Your task to perform on an android device: Go to Wikipedia Image 0: 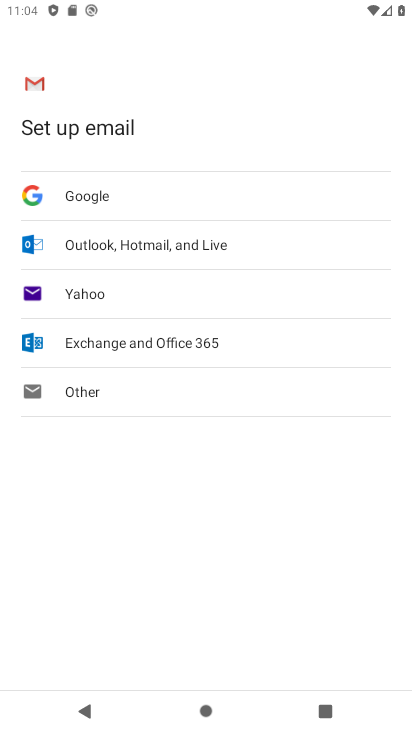
Step 0: press home button
Your task to perform on an android device: Go to Wikipedia Image 1: 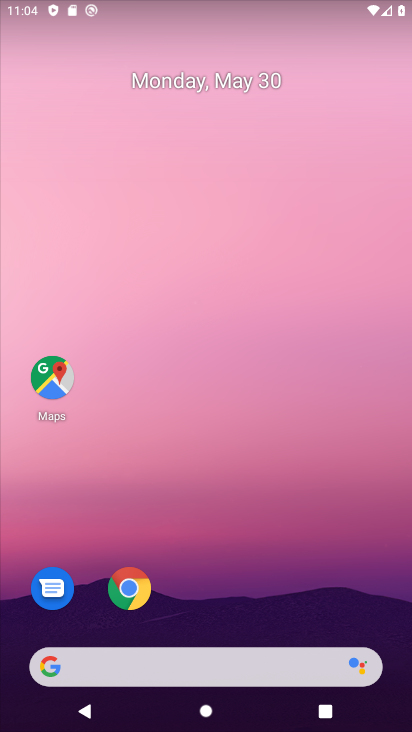
Step 1: click (130, 586)
Your task to perform on an android device: Go to Wikipedia Image 2: 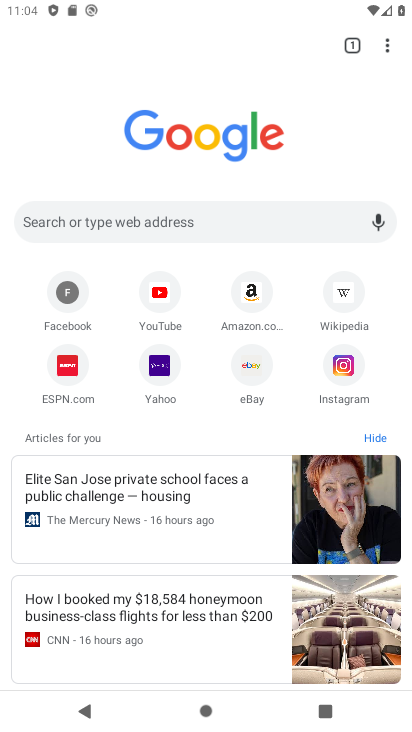
Step 2: click (342, 286)
Your task to perform on an android device: Go to Wikipedia Image 3: 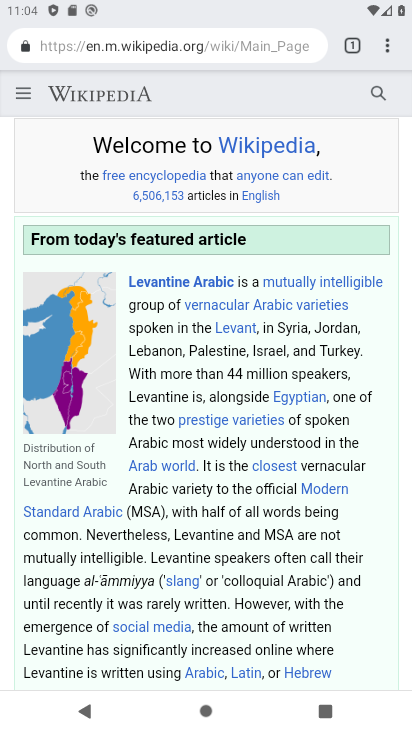
Step 3: task complete